Your task to perform on an android device: check google app version Image 0: 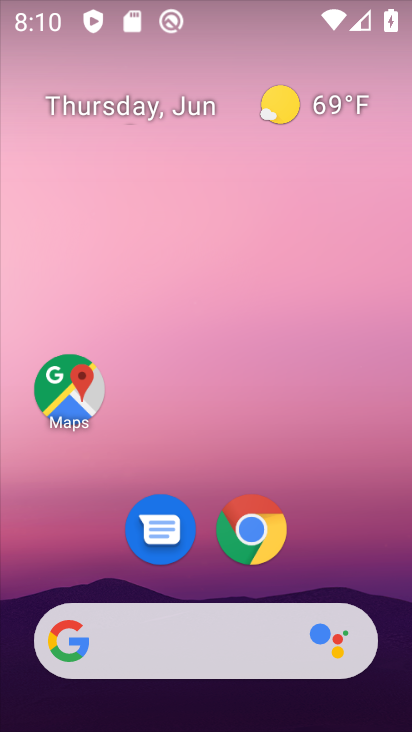
Step 0: drag from (246, 595) to (172, 91)
Your task to perform on an android device: check google app version Image 1: 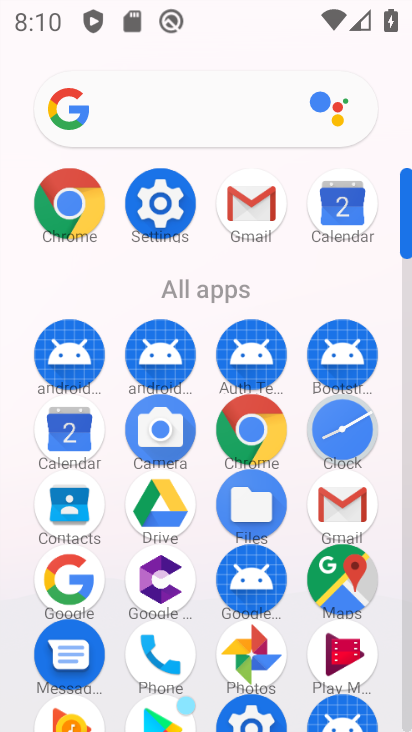
Step 1: click (65, 585)
Your task to perform on an android device: check google app version Image 2: 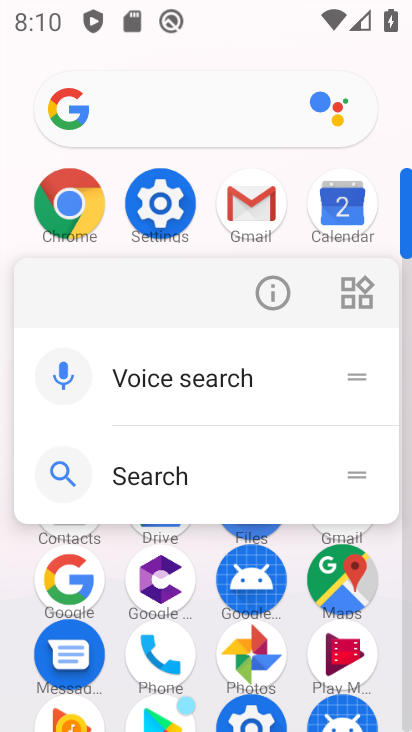
Step 2: click (258, 297)
Your task to perform on an android device: check google app version Image 3: 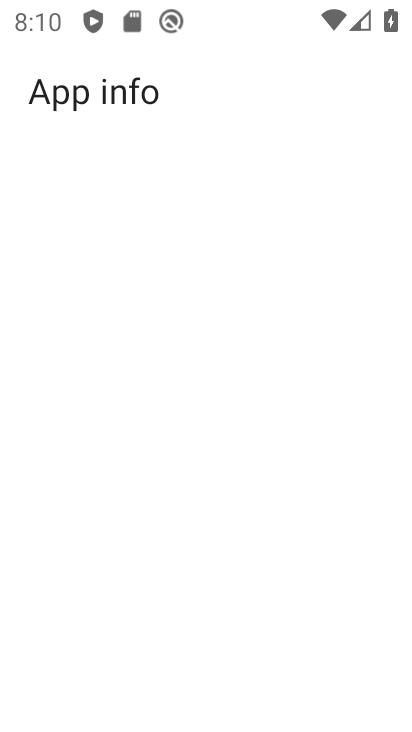
Step 3: drag from (228, 575) to (157, 100)
Your task to perform on an android device: check google app version Image 4: 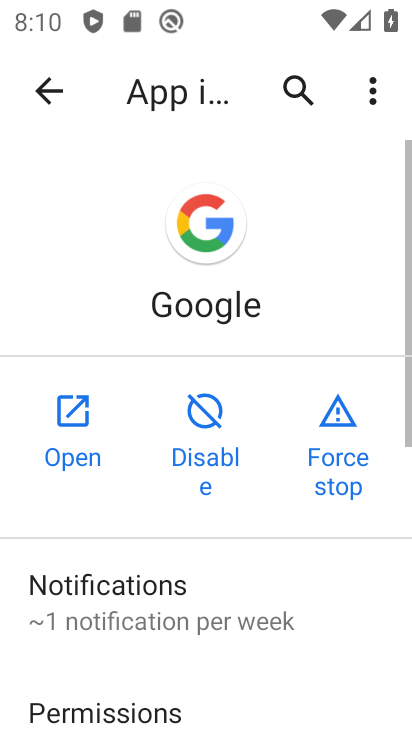
Step 4: drag from (174, 612) to (163, 122)
Your task to perform on an android device: check google app version Image 5: 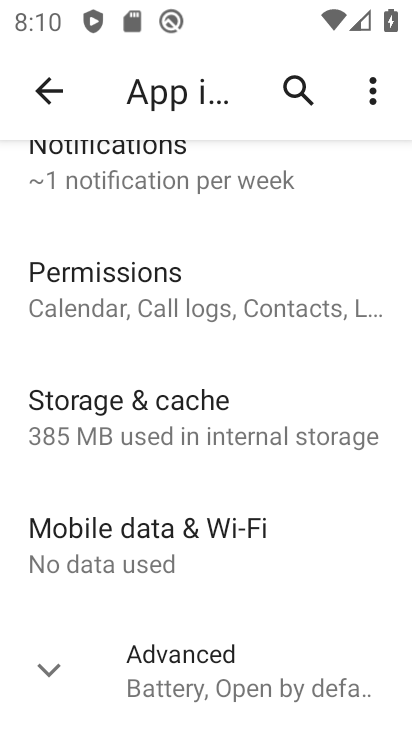
Step 5: click (202, 668)
Your task to perform on an android device: check google app version Image 6: 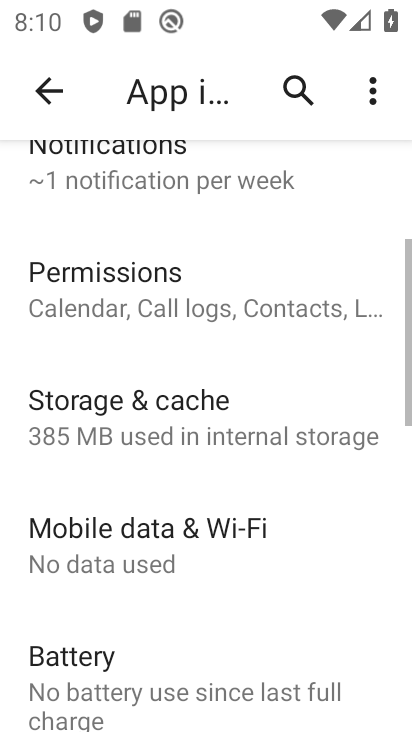
Step 6: task complete